Your task to perform on an android device: Open privacy settings Image 0: 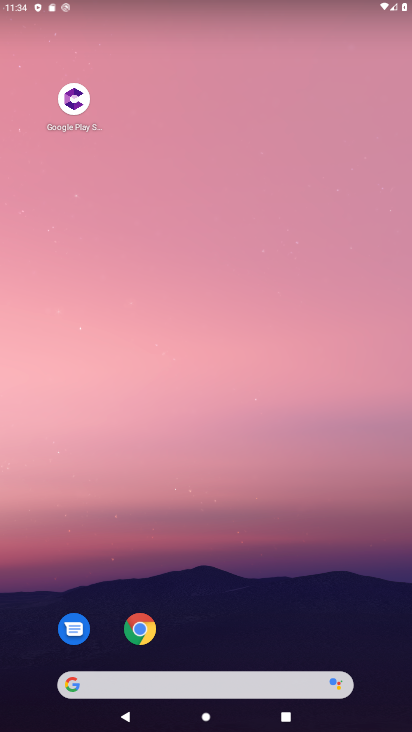
Step 0: drag from (268, 634) to (250, 298)
Your task to perform on an android device: Open privacy settings Image 1: 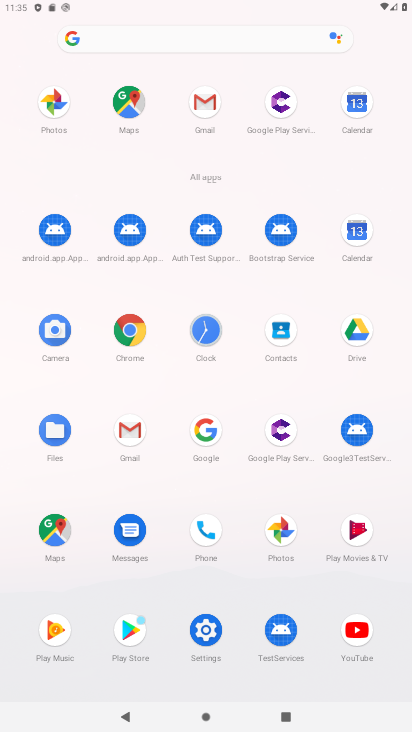
Step 1: click (200, 635)
Your task to perform on an android device: Open privacy settings Image 2: 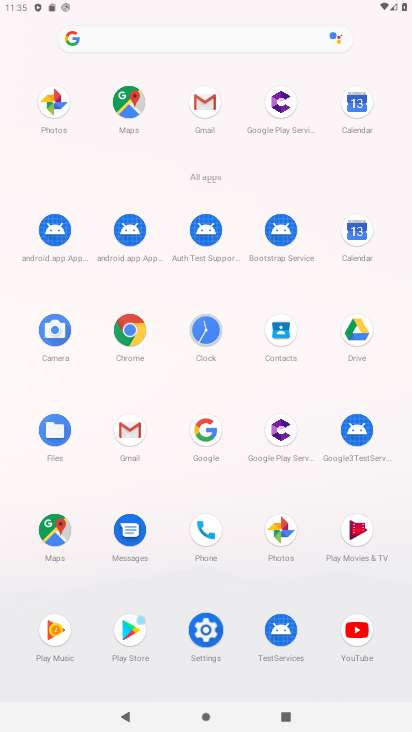
Step 2: click (213, 630)
Your task to perform on an android device: Open privacy settings Image 3: 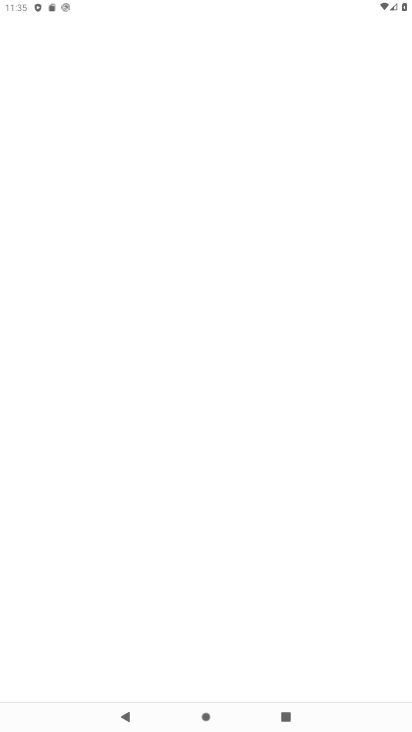
Step 3: click (211, 631)
Your task to perform on an android device: Open privacy settings Image 4: 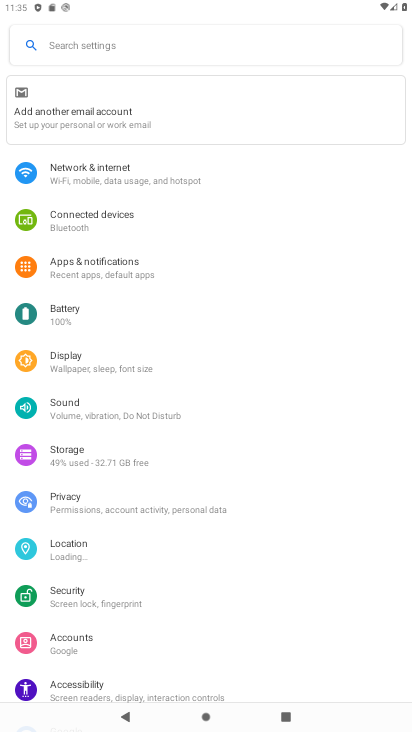
Step 4: click (72, 510)
Your task to perform on an android device: Open privacy settings Image 5: 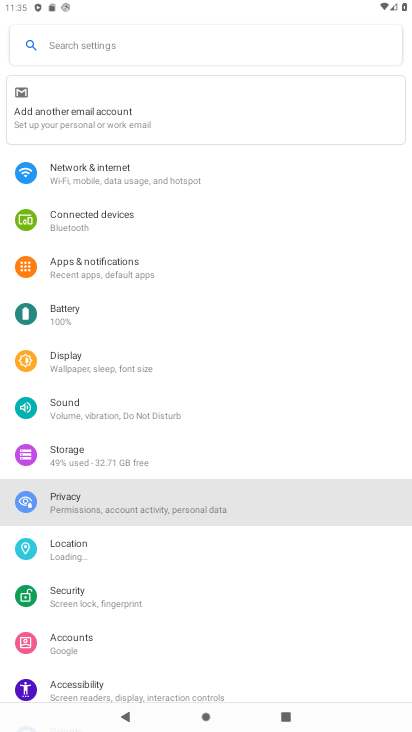
Step 5: click (73, 506)
Your task to perform on an android device: Open privacy settings Image 6: 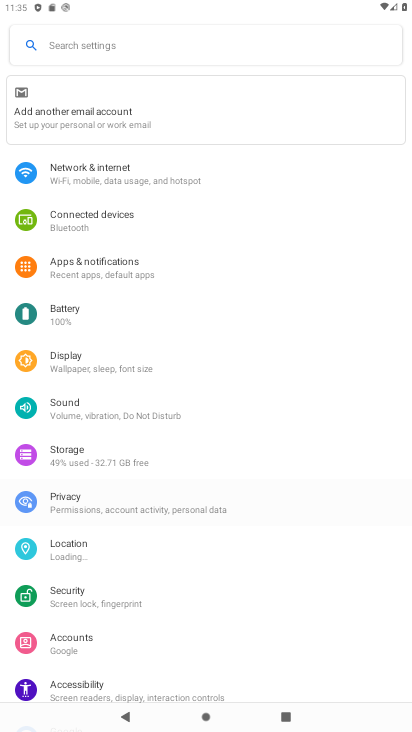
Step 6: click (74, 505)
Your task to perform on an android device: Open privacy settings Image 7: 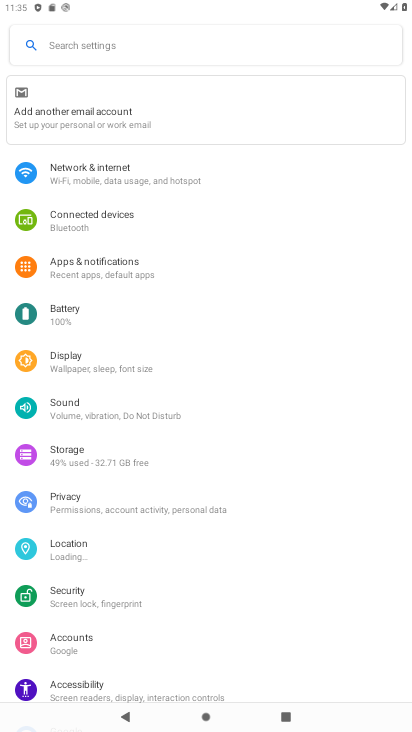
Step 7: click (74, 505)
Your task to perform on an android device: Open privacy settings Image 8: 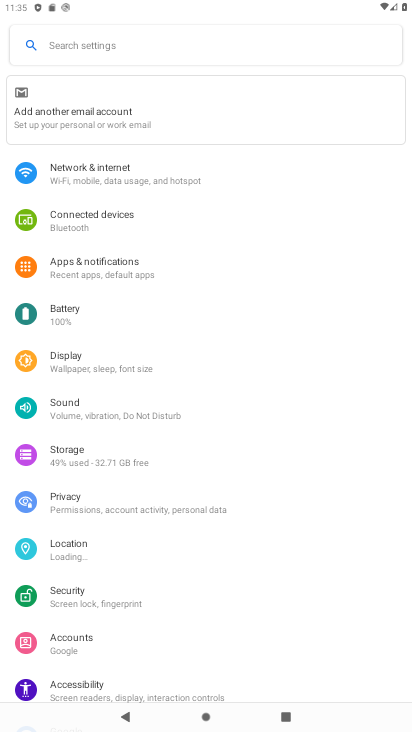
Step 8: click (76, 504)
Your task to perform on an android device: Open privacy settings Image 9: 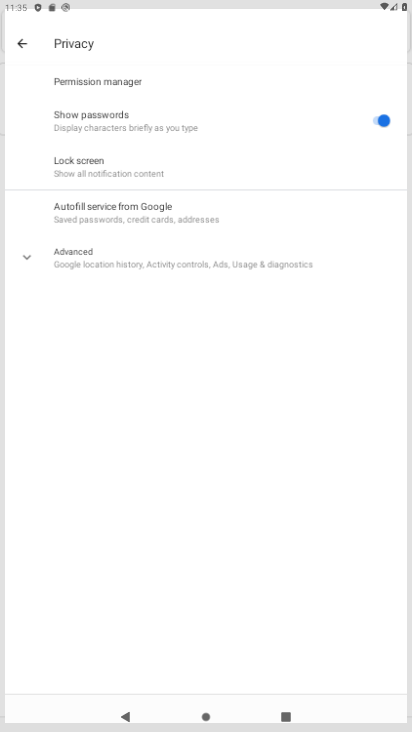
Step 9: click (77, 502)
Your task to perform on an android device: Open privacy settings Image 10: 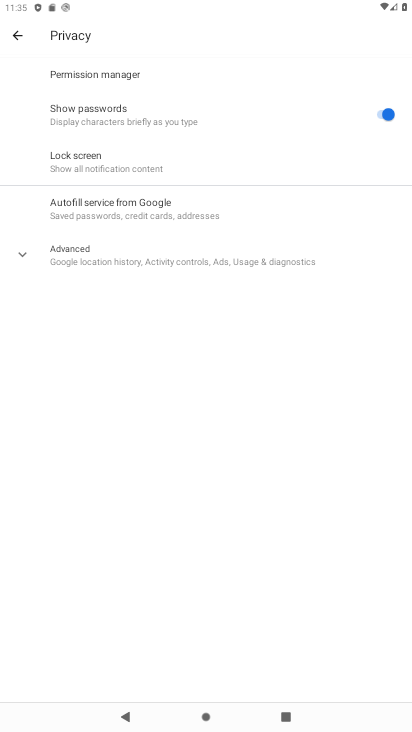
Step 10: click (77, 502)
Your task to perform on an android device: Open privacy settings Image 11: 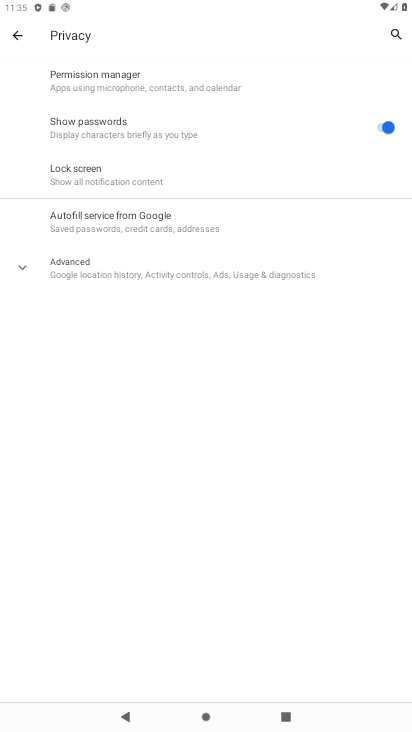
Step 11: task complete